Your task to perform on an android device: Go to ESPN.com Image 0: 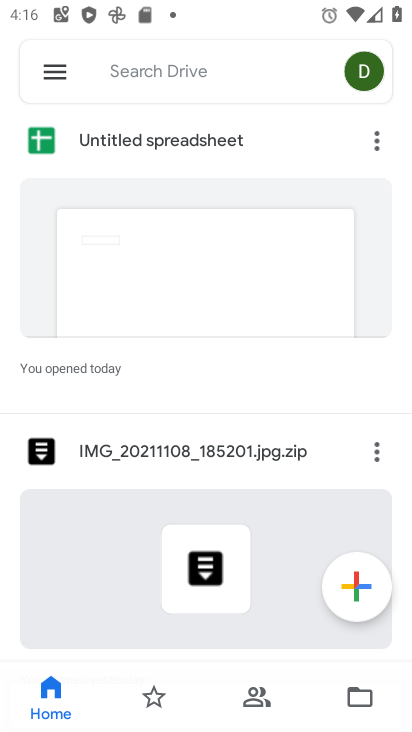
Step 0: press home button
Your task to perform on an android device: Go to ESPN.com Image 1: 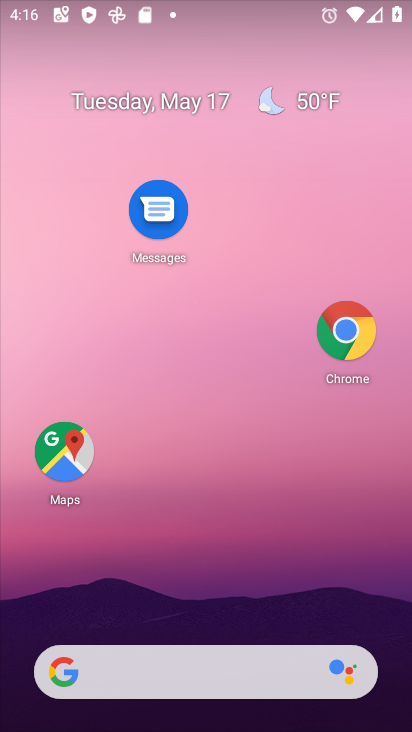
Step 1: drag from (266, 571) to (210, 113)
Your task to perform on an android device: Go to ESPN.com Image 2: 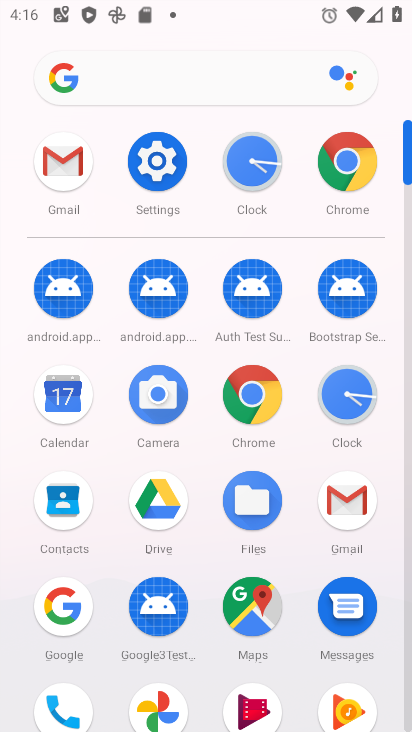
Step 2: click (327, 182)
Your task to perform on an android device: Go to ESPN.com Image 3: 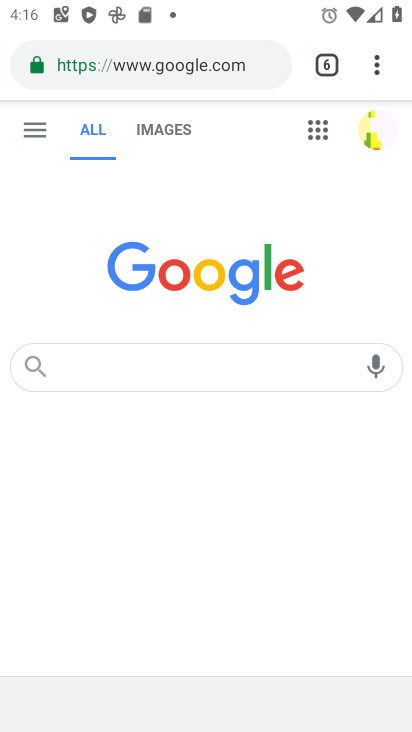
Step 3: click (165, 84)
Your task to perform on an android device: Go to ESPN.com Image 4: 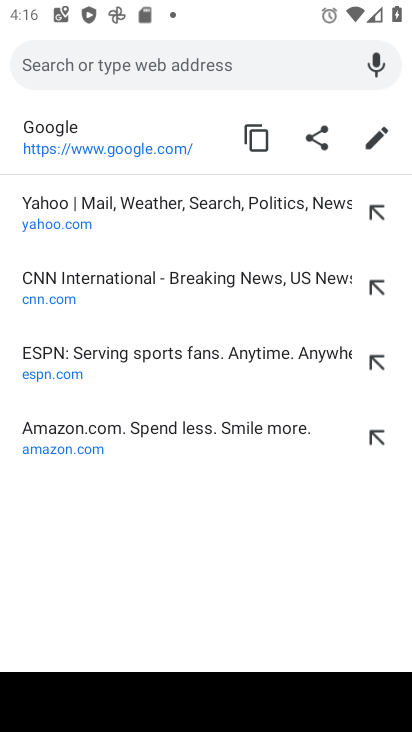
Step 4: type "espn.com"
Your task to perform on an android device: Go to ESPN.com Image 5: 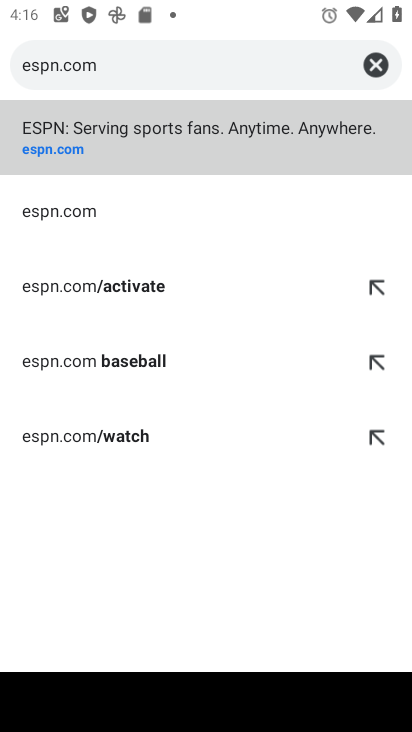
Step 5: click (148, 136)
Your task to perform on an android device: Go to ESPN.com Image 6: 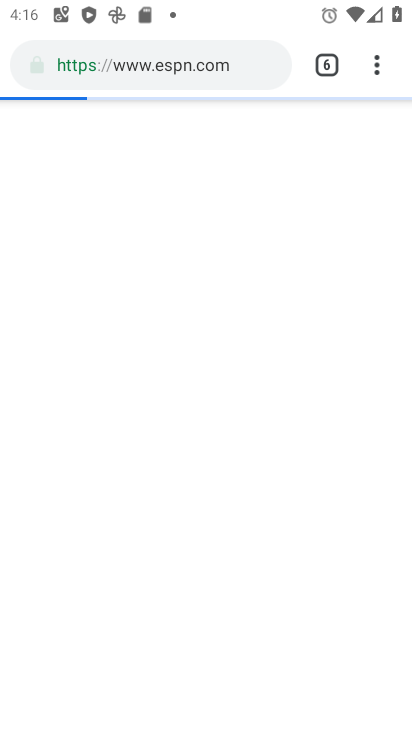
Step 6: task complete